Your task to perform on an android device: set default search engine in the chrome app Image 0: 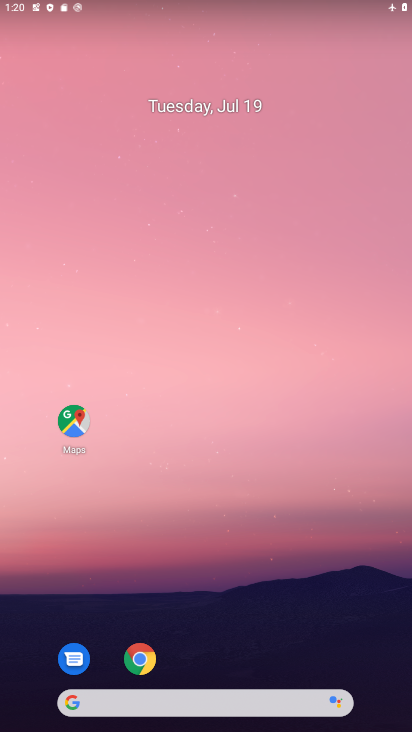
Step 0: press home button
Your task to perform on an android device: set default search engine in the chrome app Image 1: 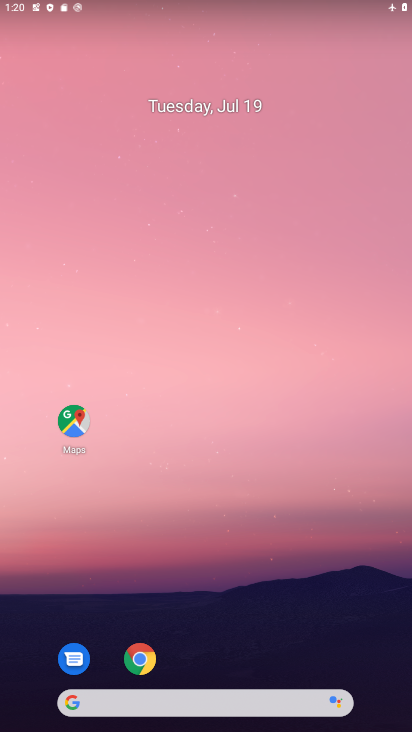
Step 1: drag from (307, 656) to (321, 397)
Your task to perform on an android device: set default search engine in the chrome app Image 2: 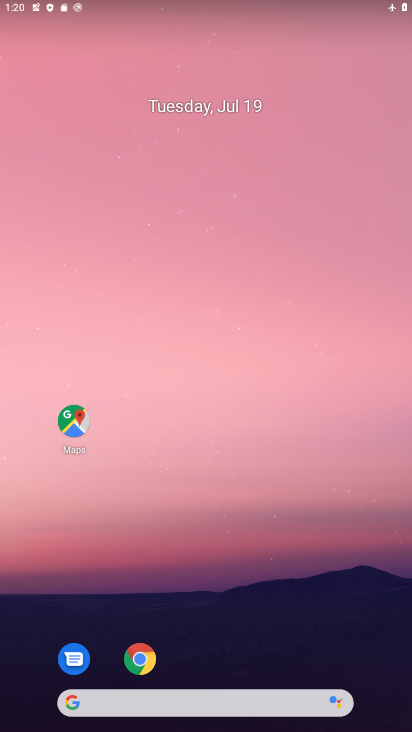
Step 2: drag from (199, 672) to (246, 254)
Your task to perform on an android device: set default search engine in the chrome app Image 3: 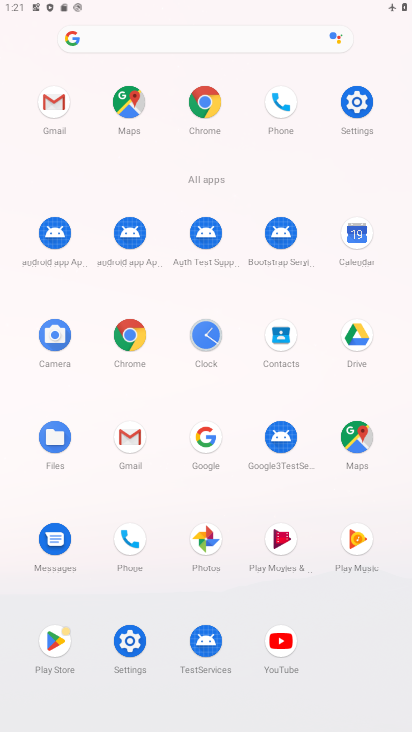
Step 3: click (148, 348)
Your task to perform on an android device: set default search engine in the chrome app Image 4: 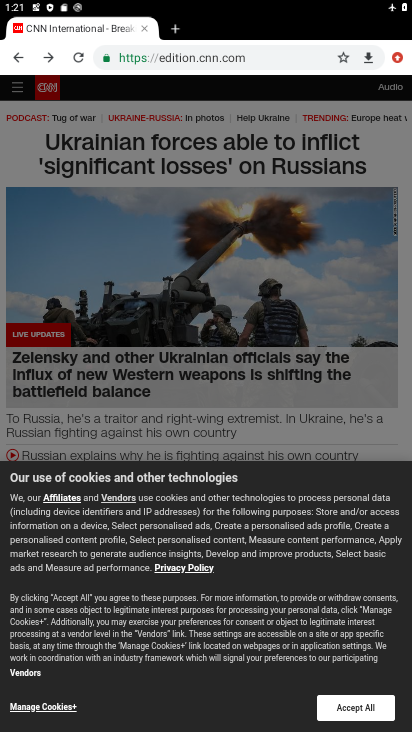
Step 4: click (191, 56)
Your task to perform on an android device: set default search engine in the chrome app Image 5: 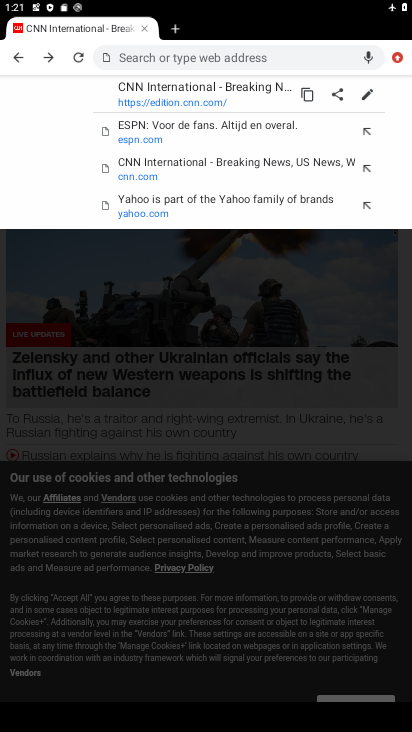
Step 5: drag from (404, 55) to (262, 410)
Your task to perform on an android device: set default search engine in the chrome app Image 6: 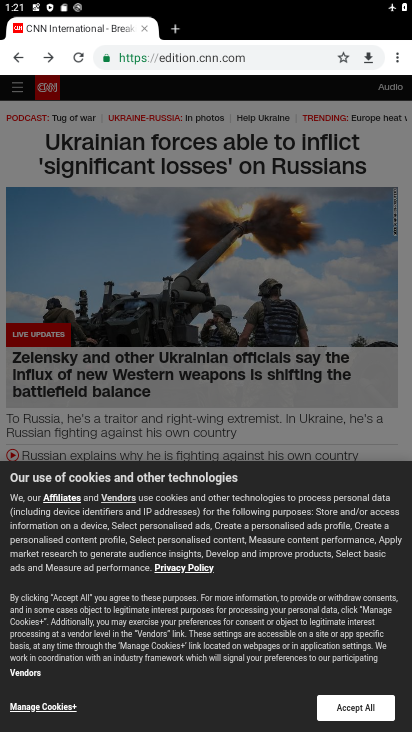
Step 6: press back button
Your task to perform on an android device: set default search engine in the chrome app Image 7: 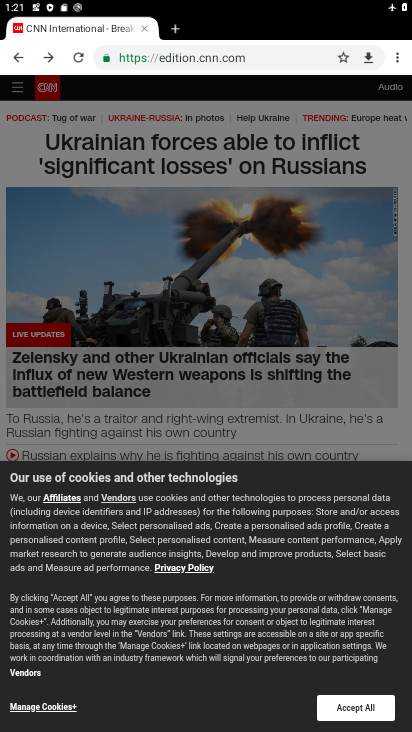
Step 7: drag from (402, 47) to (278, 384)
Your task to perform on an android device: set default search engine in the chrome app Image 8: 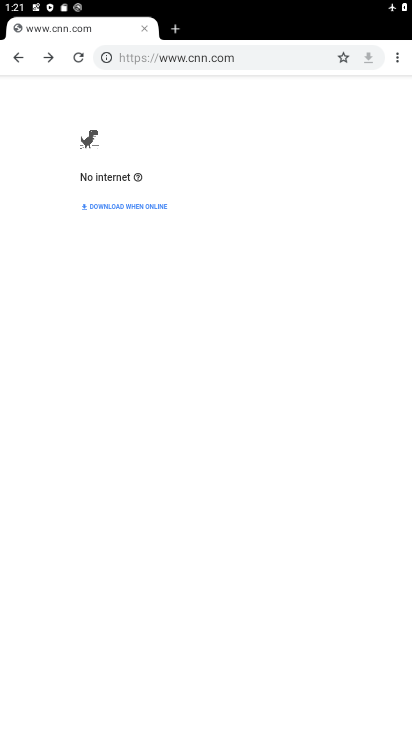
Step 8: drag from (397, 63) to (296, 366)
Your task to perform on an android device: set default search engine in the chrome app Image 9: 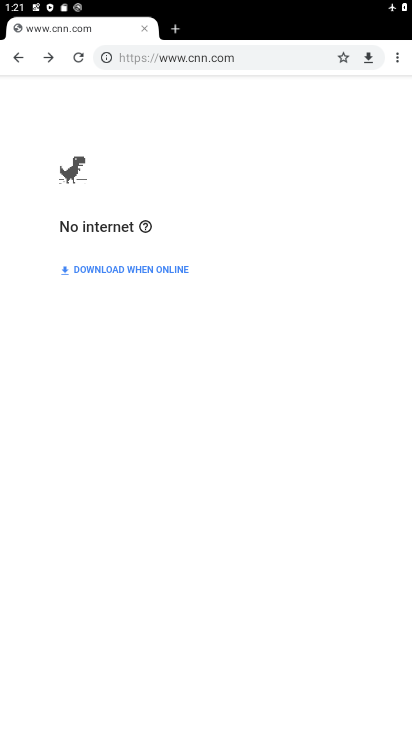
Step 9: drag from (384, 8) to (335, 488)
Your task to perform on an android device: set default search engine in the chrome app Image 10: 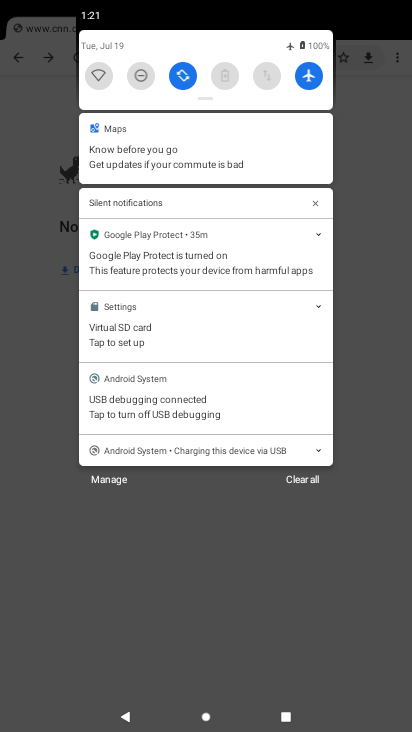
Step 10: click (311, 87)
Your task to perform on an android device: set default search engine in the chrome app Image 11: 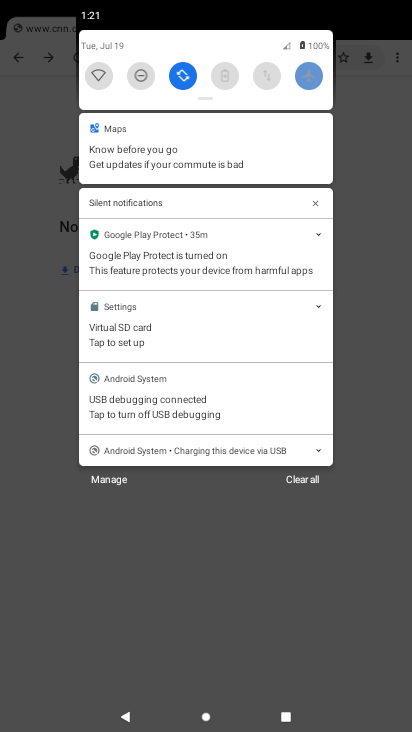
Step 11: drag from (266, 590) to (222, 110)
Your task to perform on an android device: set default search engine in the chrome app Image 12: 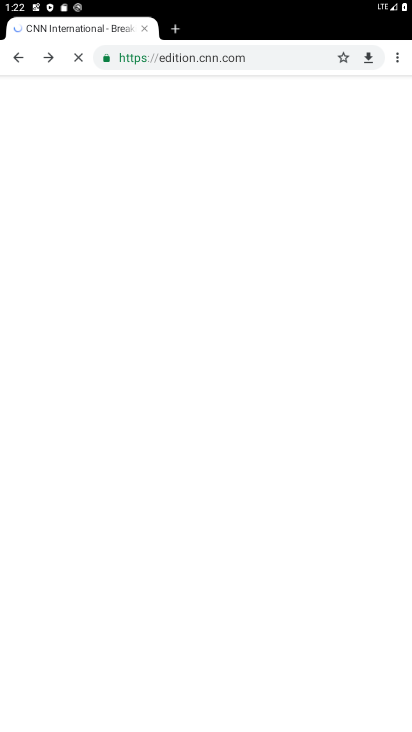
Step 12: drag from (397, 58) to (284, 396)
Your task to perform on an android device: set default search engine in the chrome app Image 13: 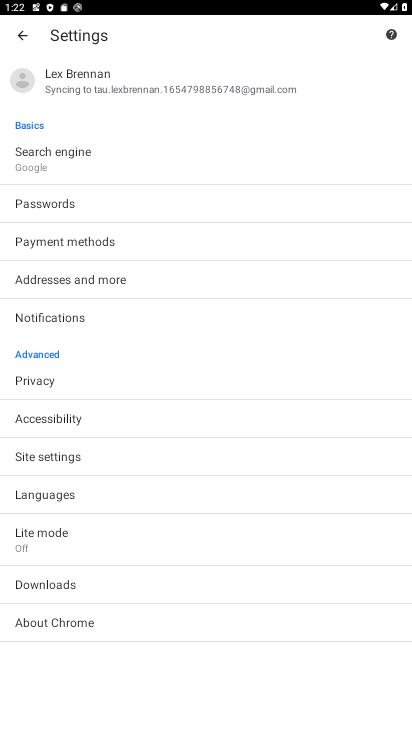
Step 13: click (97, 164)
Your task to perform on an android device: set default search engine in the chrome app Image 14: 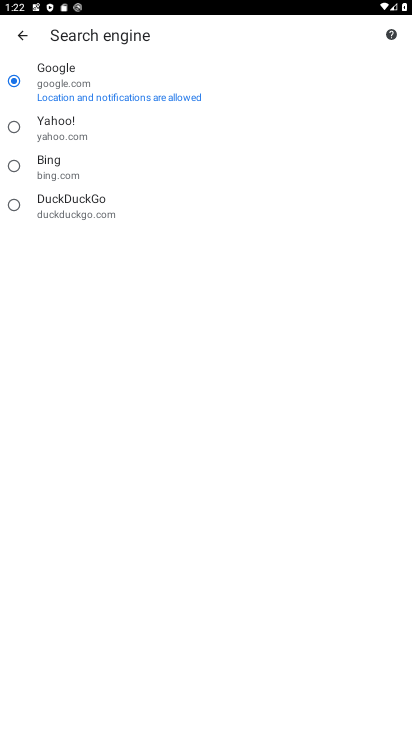
Step 14: task complete